Your task to perform on an android device: Clear all items from cart on bestbuy.com. Search for acer nitro on bestbuy.com, select the first entry, add it to the cart, then select checkout. Image 0: 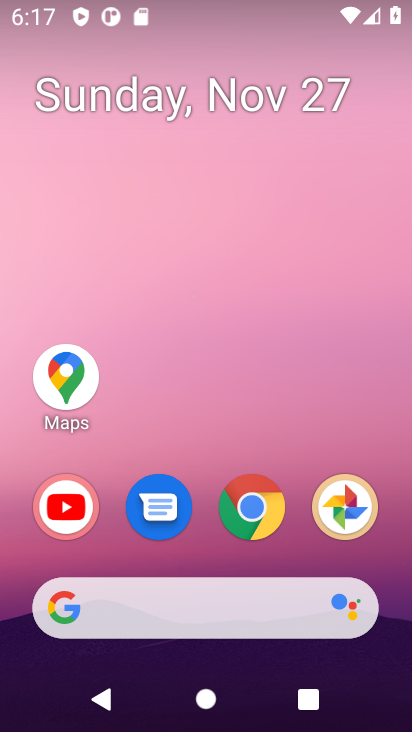
Step 0: click (265, 509)
Your task to perform on an android device: Clear all items from cart on bestbuy.com. Search for acer nitro on bestbuy.com, select the first entry, add it to the cart, then select checkout. Image 1: 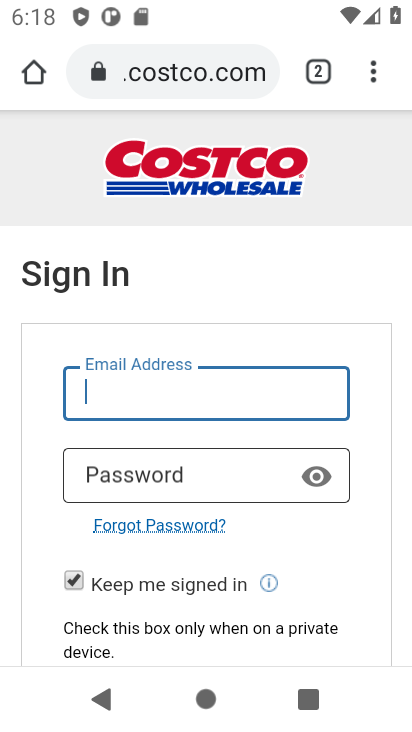
Step 1: click (217, 73)
Your task to perform on an android device: Clear all items from cart on bestbuy.com. Search for acer nitro on bestbuy.com, select the first entry, add it to the cart, then select checkout. Image 2: 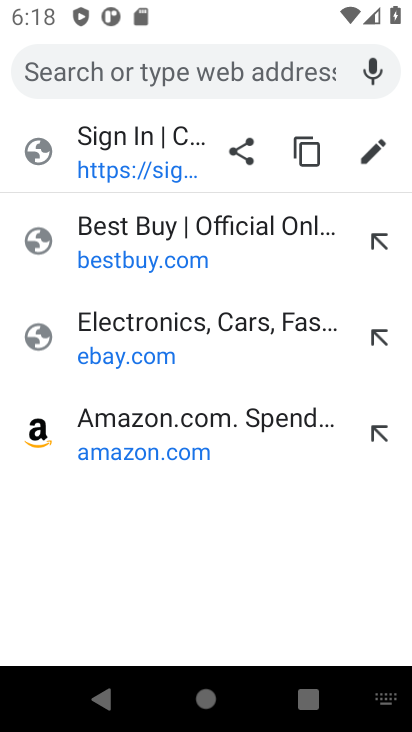
Step 2: type "bestbuy.com"
Your task to perform on an android device: Clear all items from cart on bestbuy.com. Search for acer nitro on bestbuy.com, select the first entry, add it to the cart, then select checkout. Image 3: 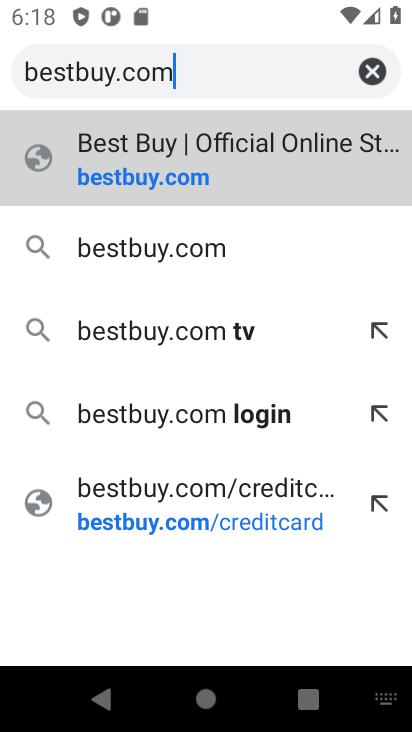
Step 3: click (299, 163)
Your task to perform on an android device: Clear all items from cart on bestbuy.com. Search for acer nitro on bestbuy.com, select the first entry, add it to the cart, then select checkout. Image 4: 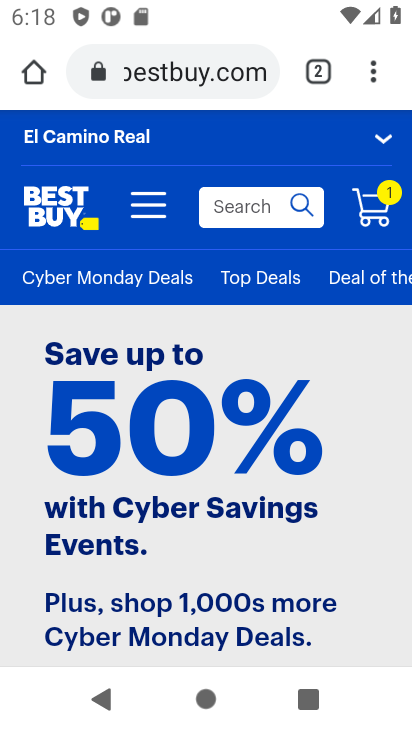
Step 4: click (367, 205)
Your task to perform on an android device: Clear all items from cart on bestbuy.com. Search for acer nitro on bestbuy.com, select the first entry, add it to the cart, then select checkout. Image 5: 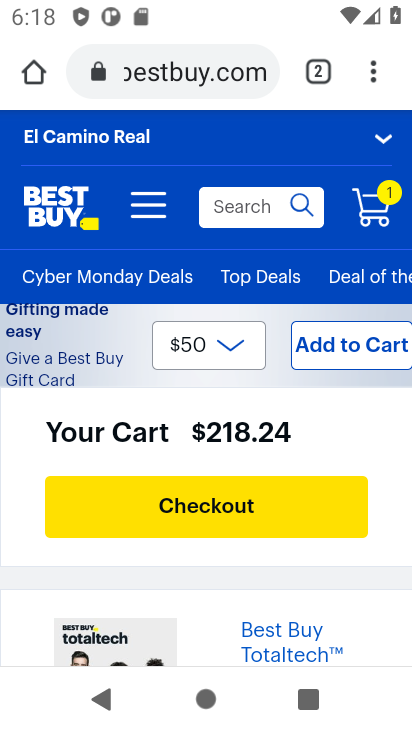
Step 5: drag from (283, 536) to (327, 184)
Your task to perform on an android device: Clear all items from cart on bestbuy.com. Search for acer nitro on bestbuy.com, select the first entry, add it to the cart, then select checkout. Image 6: 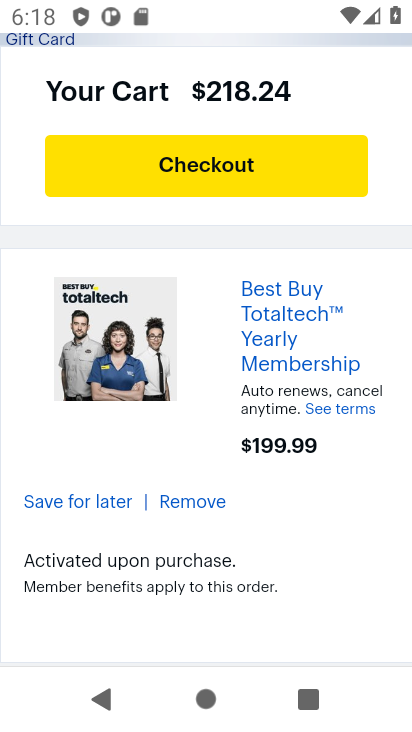
Step 6: click (192, 499)
Your task to perform on an android device: Clear all items from cart on bestbuy.com. Search for acer nitro on bestbuy.com, select the first entry, add it to the cart, then select checkout. Image 7: 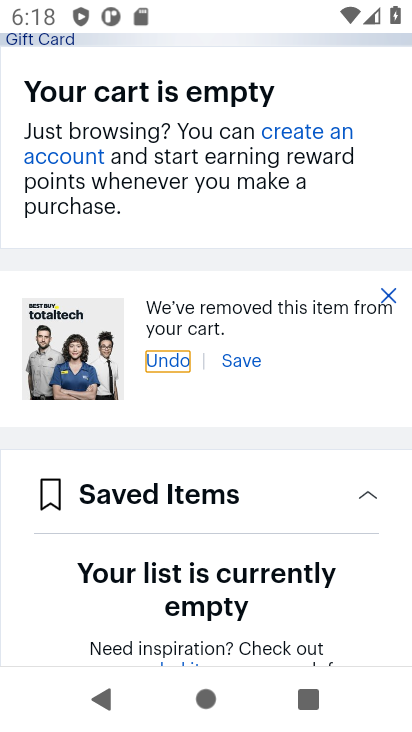
Step 7: drag from (241, 546) to (243, 240)
Your task to perform on an android device: Clear all items from cart on bestbuy.com. Search for acer nitro on bestbuy.com, select the first entry, add it to the cart, then select checkout. Image 8: 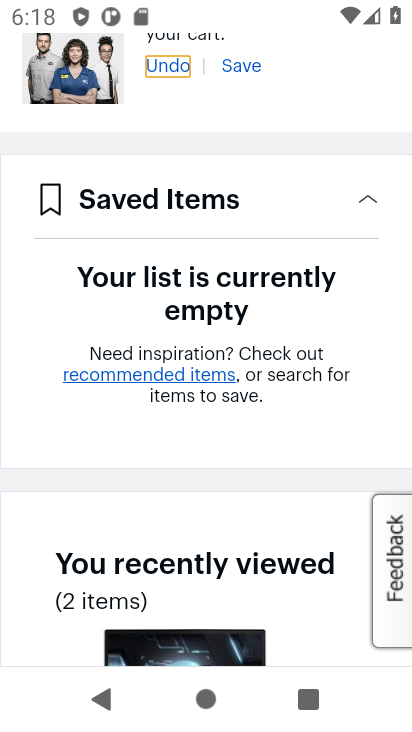
Step 8: drag from (245, 103) to (245, 311)
Your task to perform on an android device: Clear all items from cart on bestbuy.com. Search for acer nitro on bestbuy.com, select the first entry, add it to the cart, then select checkout. Image 9: 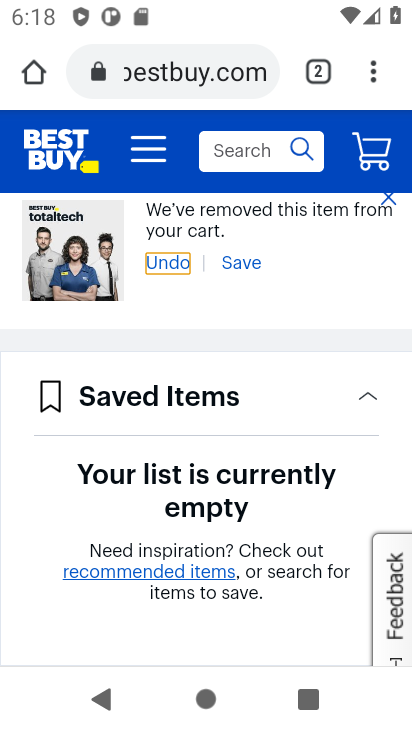
Step 9: click (240, 140)
Your task to perform on an android device: Clear all items from cart on bestbuy.com. Search for acer nitro on bestbuy.com, select the first entry, add it to the cart, then select checkout. Image 10: 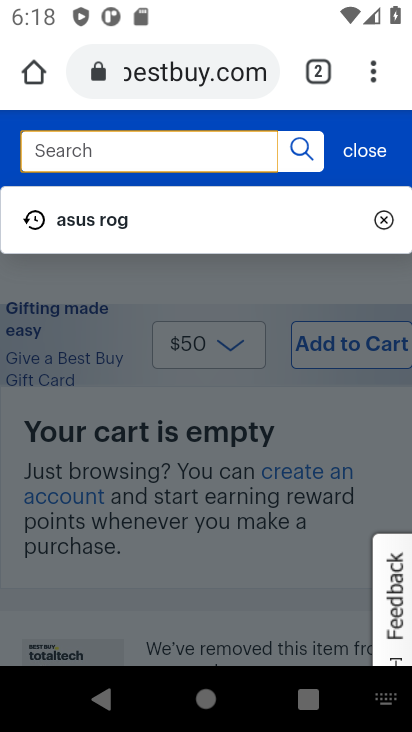
Step 10: type "acer nitro"
Your task to perform on an android device: Clear all items from cart on bestbuy.com. Search for acer nitro on bestbuy.com, select the first entry, add it to the cart, then select checkout. Image 11: 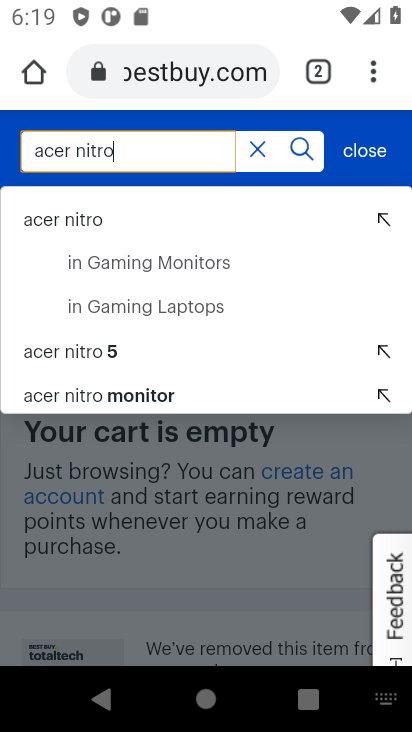
Step 11: click (303, 144)
Your task to perform on an android device: Clear all items from cart on bestbuy.com. Search for acer nitro on bestbuy.com, select the first entry, add it to the cart, then select checkout. Image 12: 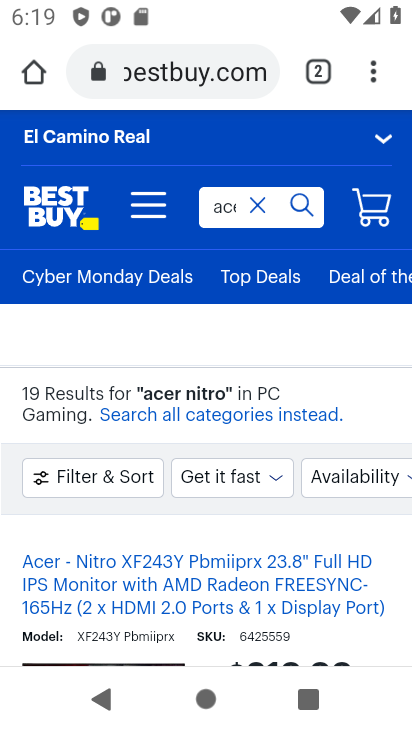
Step 12: drag from (238, 585) to (237, 117)
Your task to perform on an android device: Clear all items from cart on bestbuy.com. Search for acer nitro on bestbuy.com, select the first entry, add it to the cart, then select checkout. Image 13: 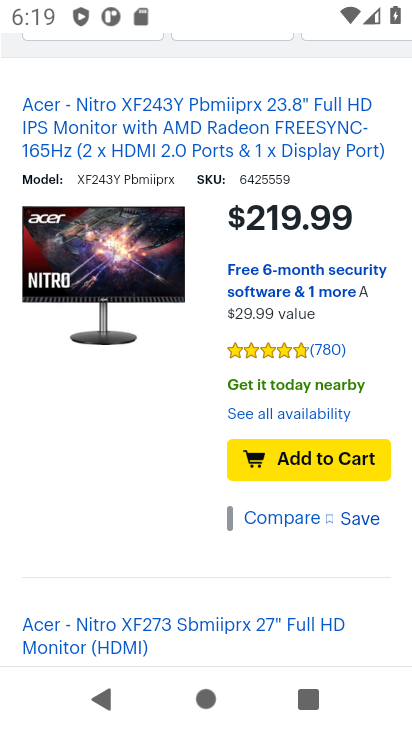
Step 13: click (309, 459)
Your task to perform on an android device: Clear all items from cart on bestbuy.com. Search for acer nitro on bestbuy.com, select the first entry, add it to the cart, then select checkout. Image 14: 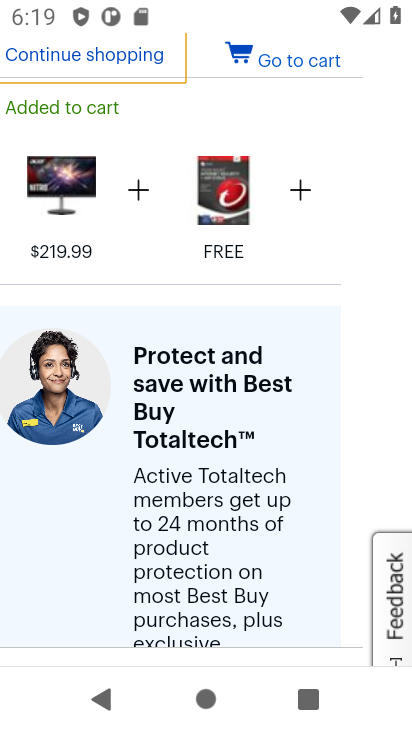
Step 14: drag from (153, 572) to (173, 153)
Your task to perform on an android device: Clear all items from cart on bestbuy.com. Search for acer nitro on bestbuy.com, select the first entry, add it to the cart, then select checkout. Image 15: 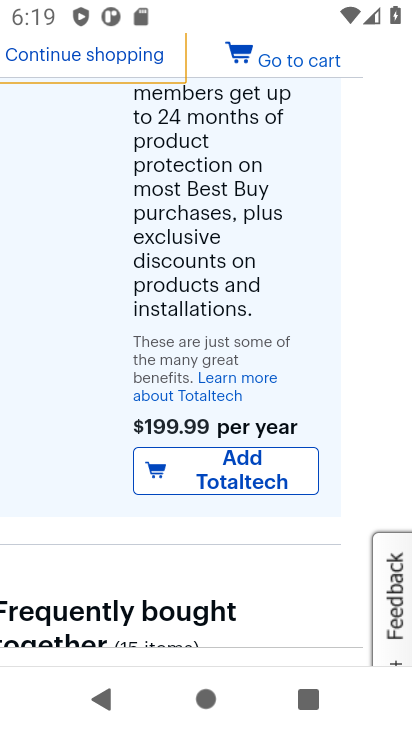
Step 15: drag from (189, 544) to (241, 172)
Your task to perform on an android device: Clear all items from cart on bestbuy.com. Search for acer nitro on bestbuy.com, select the first entry, add it to the cart, then select checkout. Image 16: 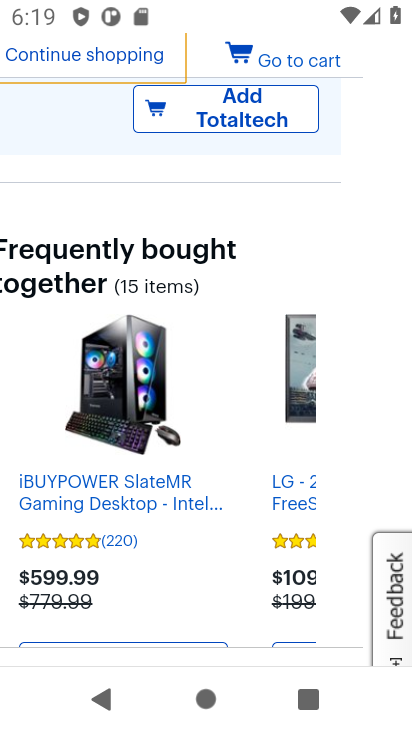
Step 16: click (261, 61)
Your task to perform on an android device: Clear all items from cart on bestbuy.com. Search for acer nitro on bestbuy.com, select the first entry, add it to the cart, then select checkout. Image 17: 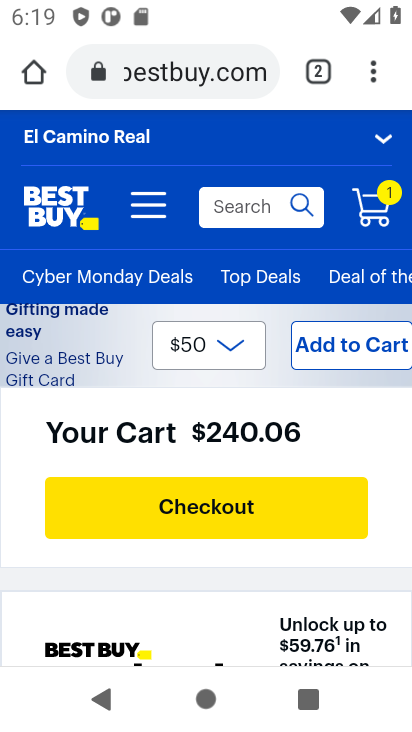
Step 17: click (216, 505)
Your task to perform on an android device: Clear all items from cart on bestbuy.com. Search for acer nitro on bestbuy.com, select the first entry, add it to the cart, then select checkout. Image 18: 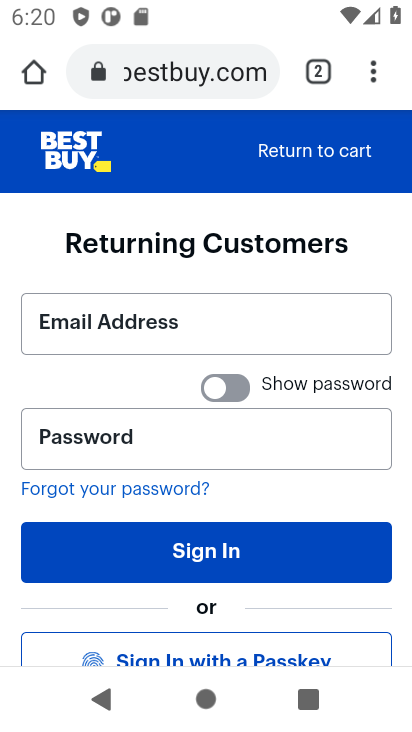
Step 18: task complete